Your task to perform on an android device: Open the phone app and click the voicemail tab. Image 0: 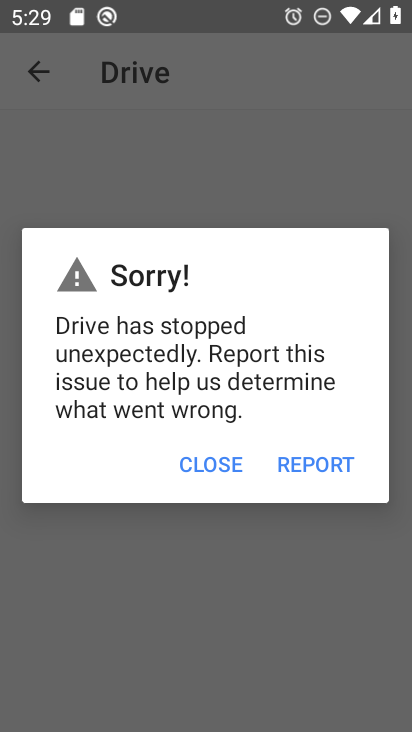
Step 0: press home button
Your task to perform on an android device: Open the phone app and click the voicemail tab. Image 1: 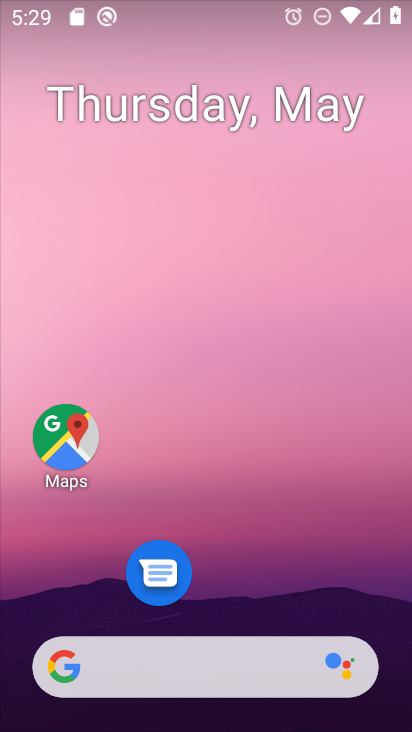
Step 1: drag from (250, 539) to (161, 17)
Your task to perform on an android device: Open the phone app and click the voicemail tab. Image 2: 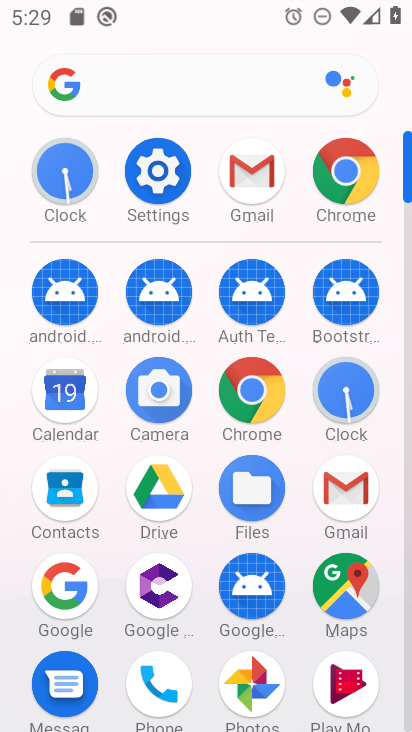
Step 2: click (149, 688)
Your task to perform on an android device: Open the phone app and click the voicemail tab. Image 3: 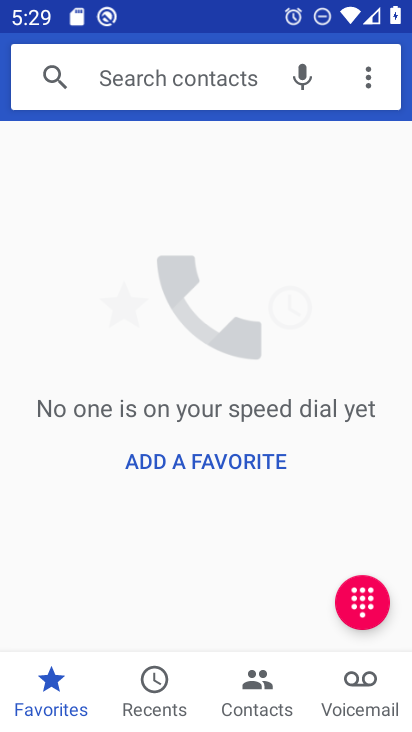
Step 3: click (377, 708)
Your task to perform on an android device: Open the phone app and click the voicemail tab. Image 4: 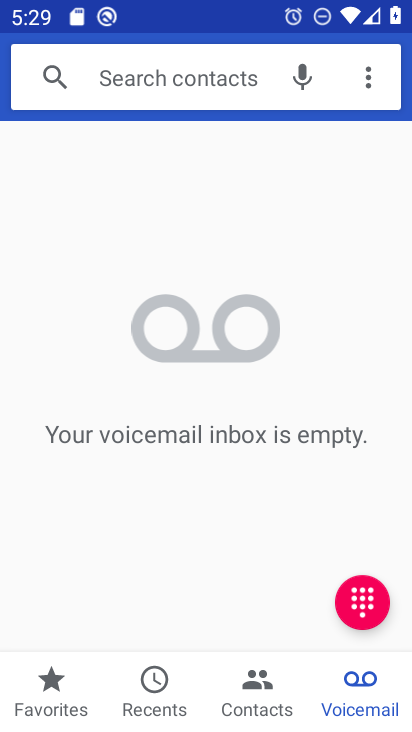
Step 4: task complete